Your task to perform on an android device: Turn off the flashlight Image 0: 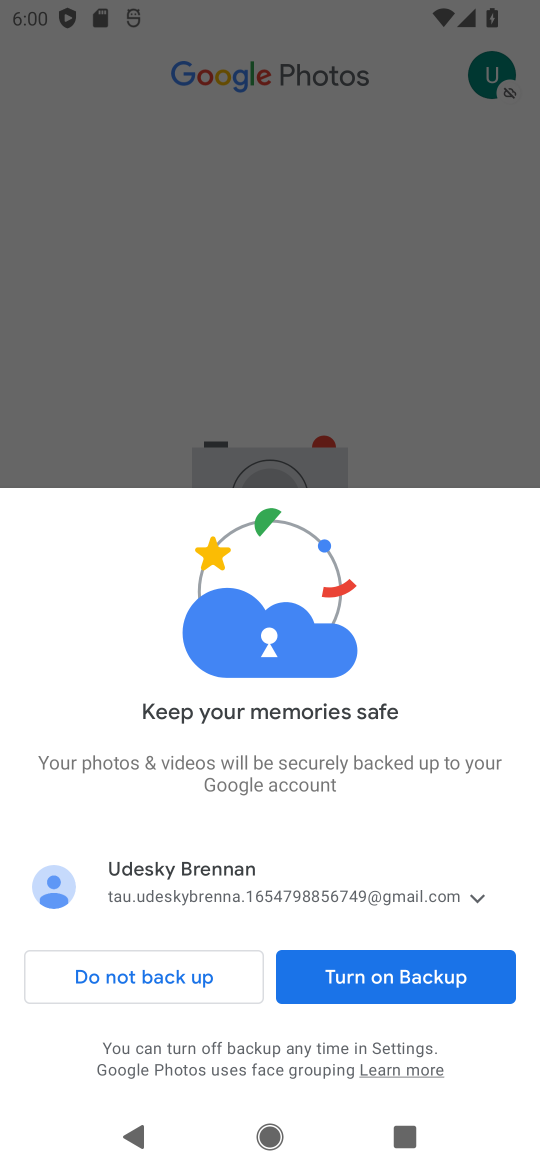
Step 0: press home button
Your task to perform on an android device: Turn off the flashlight Image 1: 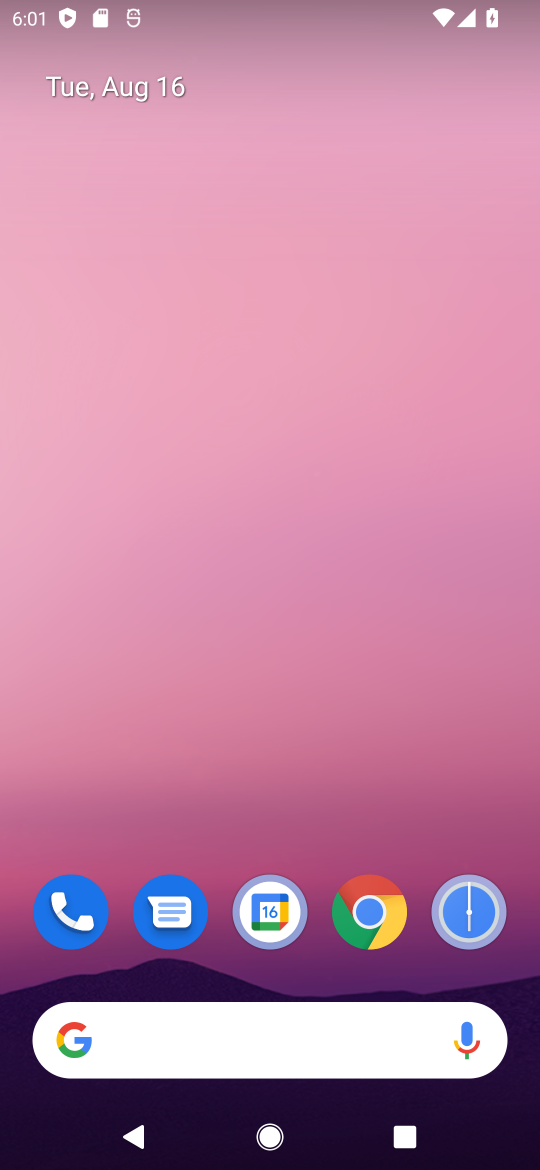
Step 1: task complete